Your task to perform on an android device: Go to calendar. Show me events next week Image 0: 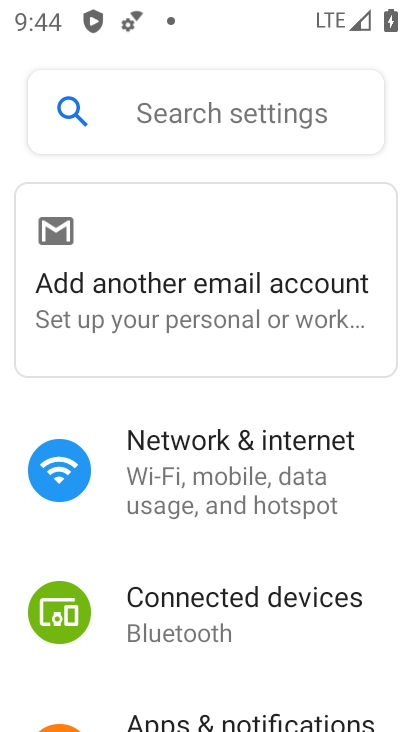
Step 0: press home button
Your task to perform on an android device: Go to calendar. Show me events next week Image 1: 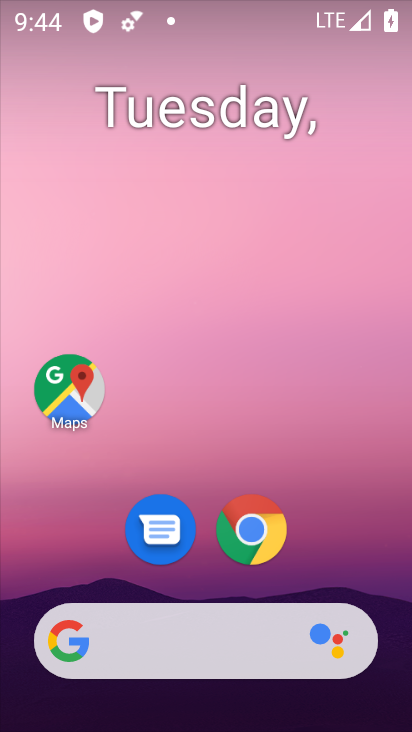
Step 1: drag from (292, 628) to (272, 247)
Your task to perform on an android device: Go to calendar. Show me events next week Image 2: 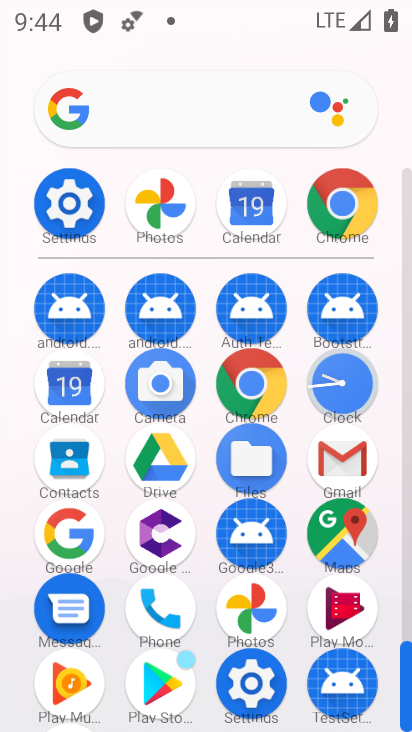
Step 2: click (89, 386)
Your task to perform on an android device: Go to calendar. Show me events next week Image 3: 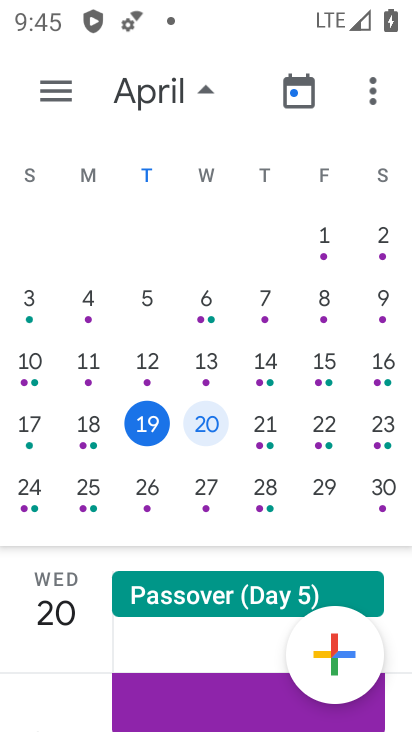
Step 3: click (204, 480)
Your task to perform on an android device: Go to calendar. Show me events next week Image 4: 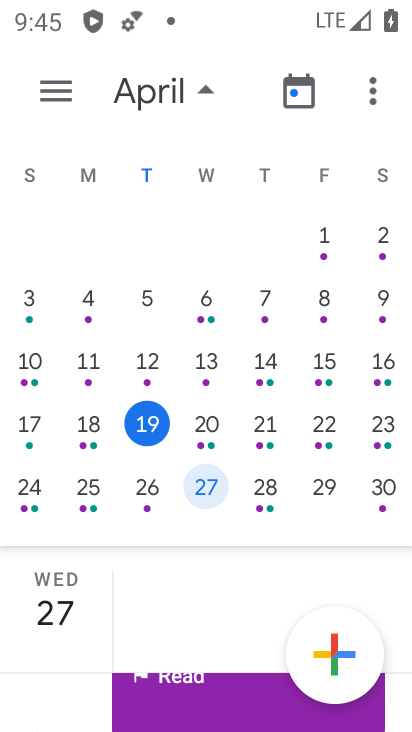
Step 4: click (56, 102)
Your task to perform on an android device: Go to calendar. Show me events next week Image 5: 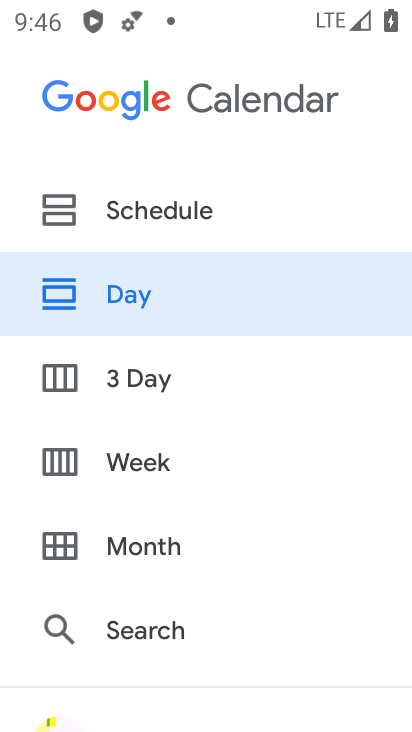
Step 5: click (186, 461)
Your task to perform on an android device: Go to calendar. Show me events next week Image 6: 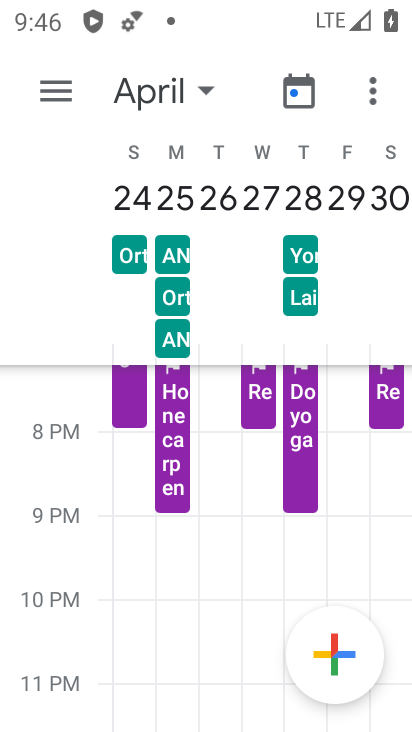
Step 6: task complete